Your task to perform on an android device: open device folders in google photos Image 0: 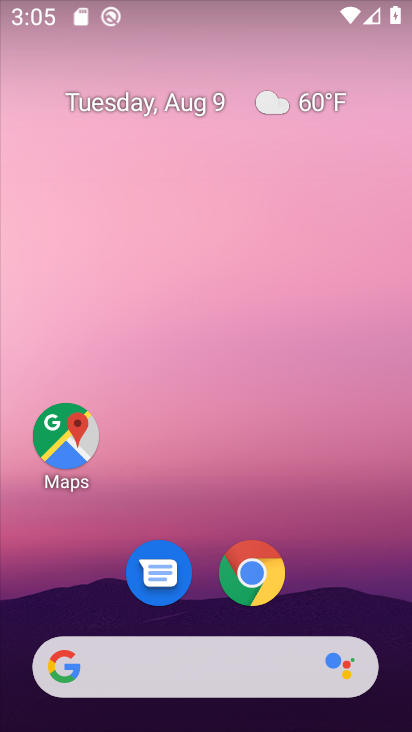
Step 0: drag from (341, 547) to (298, 207)
Your task to perform on an android device: open device folders in google photos Image 1: 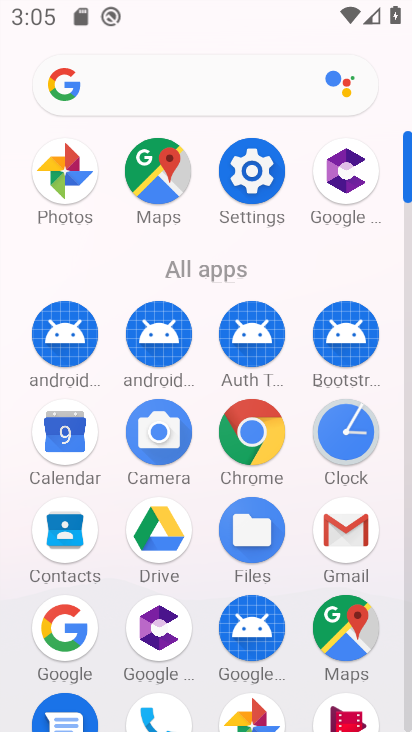
Step 1: click (253, 711)
Your task to perform on an android device: open device folders in google photos Image 2: 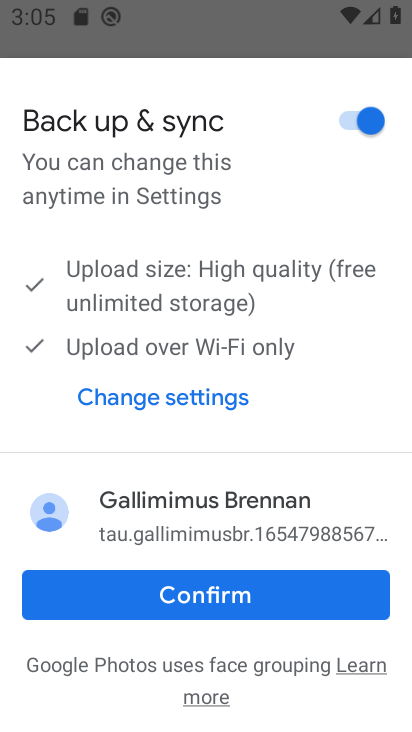
Step 2: click (115, 590)
Your task to perform on an android device: open device folders in google photos Image 3: 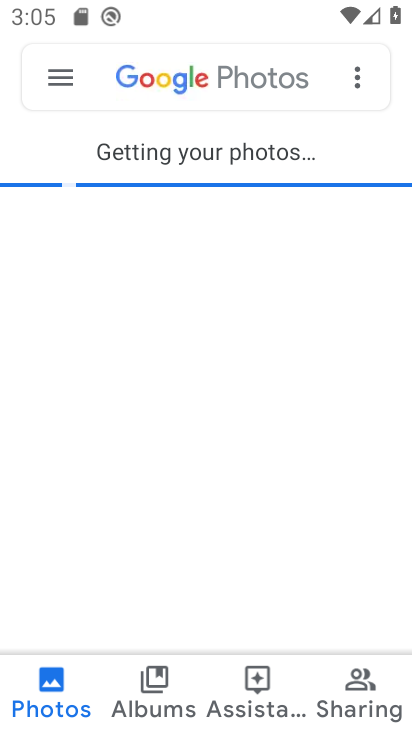
Step 3: click (46, 77)
Your task to perform on an android device: open device folders in google photos Image 4: 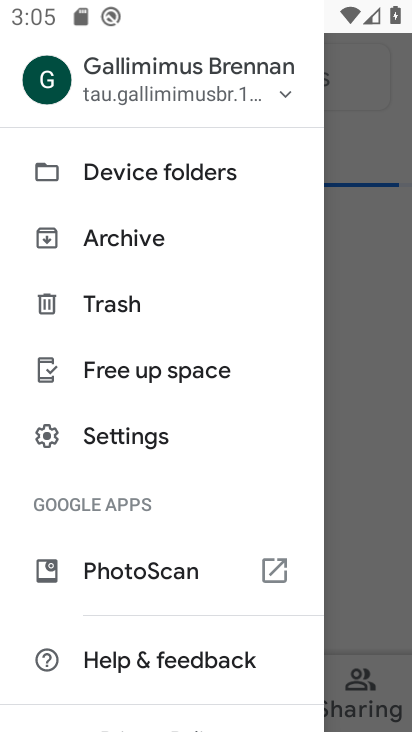
Step 4: click (166, 176)
Your task to perform on an android device: open device folders in google photos Image 5: 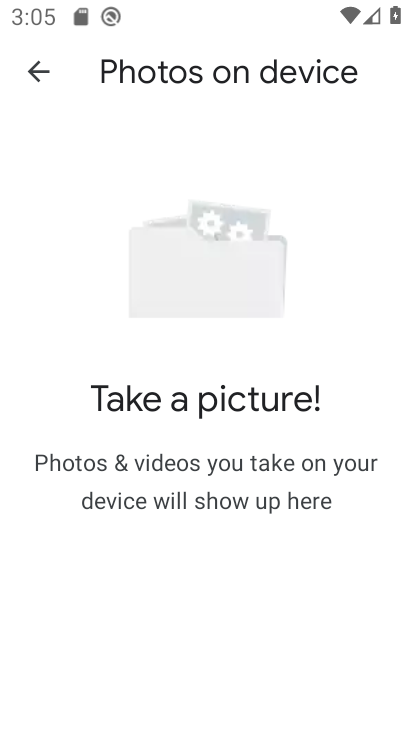
Step 5: task complete